Your task to perform on an android device: remove spam from my inbox in the gmail app Image 0: 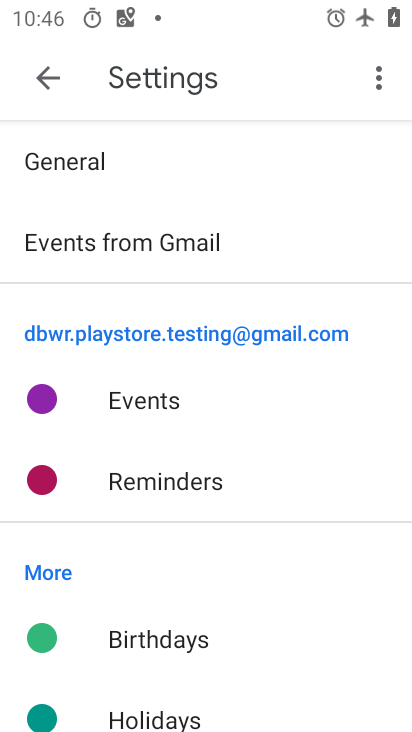
Step 0: press home button
Your task to perform on an android device: remove spam from my inbox in the gmail app Image 1: 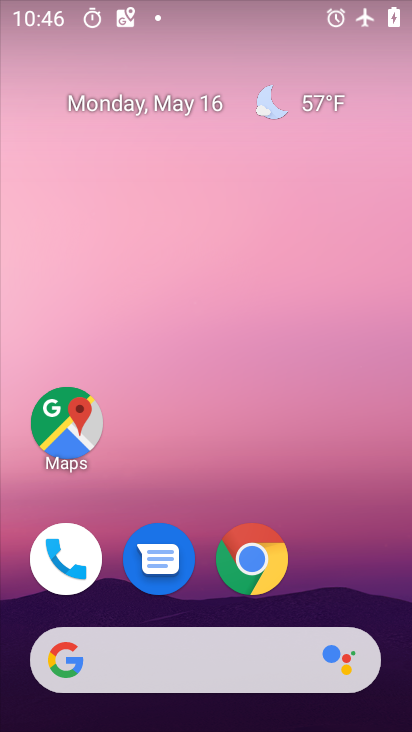
Step 1: drag from (337, 575) to (251, 180)
Your task to perform on an android device: remove spam from my inbox in the gmail app Image 2: 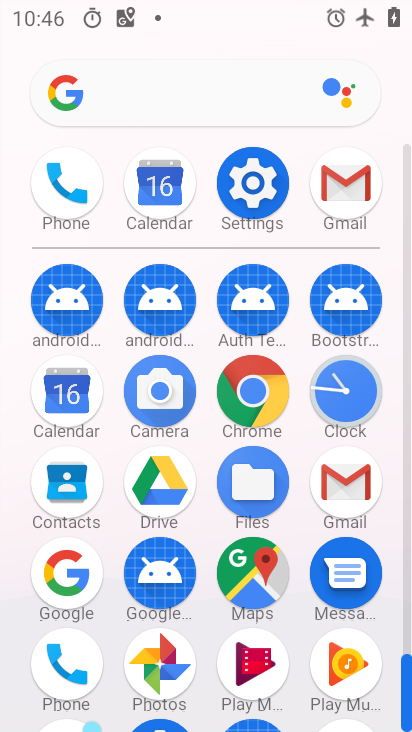
Step 2: click (340, 490)
Your task to perform on an android device: remove spam from my inbox in the gmail app Image 3: 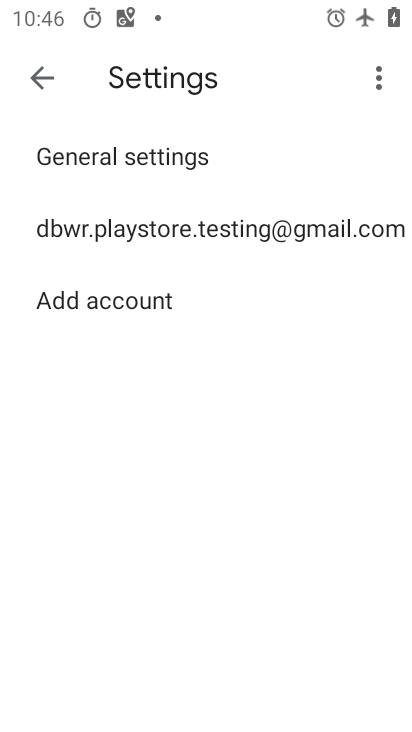
Step 3: click (46, 86)
Your task to perform on an android device: remove spam from my inbox in the gmail app Image 4: 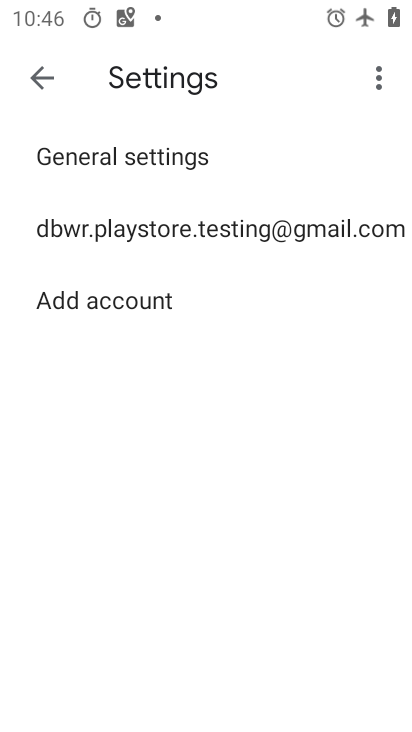
Step 4: click (45, 86)
Your task to perform on an android device: remove spam from my inbox in the gmail app Image 5: 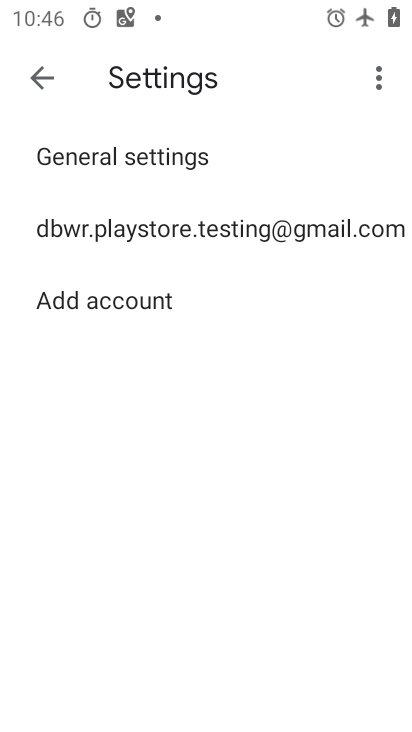
Step 5: click (45, 86)
Your task to perform on an android device: remove spam from my inbox in the gmail app Image 6: 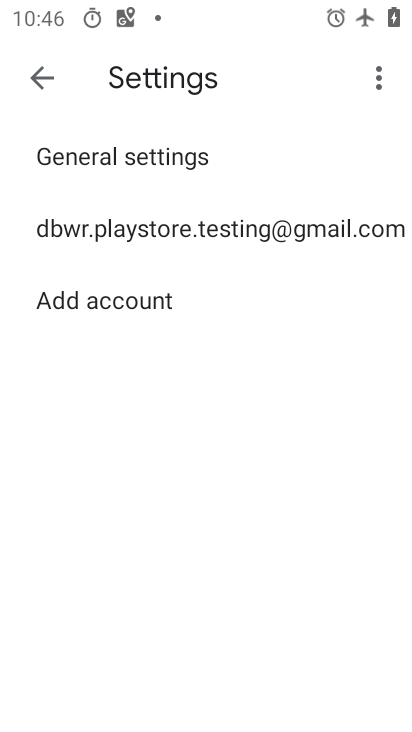
Step 6: click (45, 86)
Your task to perform on an android device: remove spam from my inbox in the gmail app Image 7: 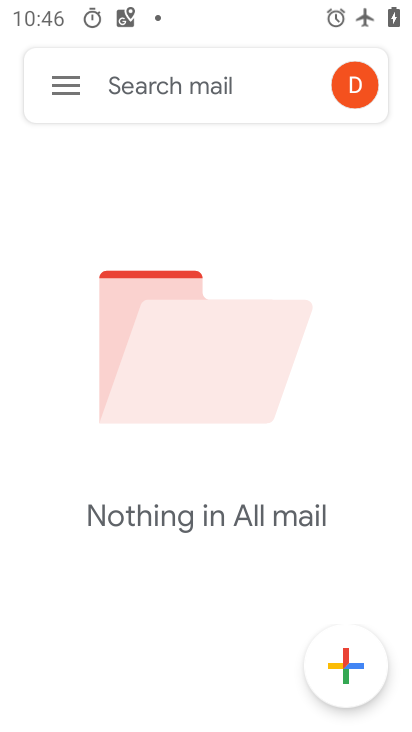
Step 7: click (49, 86)
Your task to perform on an android device: remove spam from my inbox in the gmail app Image 8: 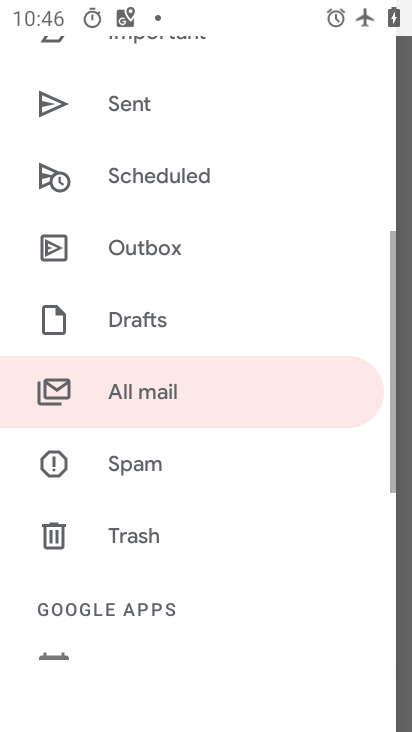
Step 8: drag from (140, 135) to (224, 705)
Your task to perform on an android device: remove spam from my inbox in the gmail app Image 9: 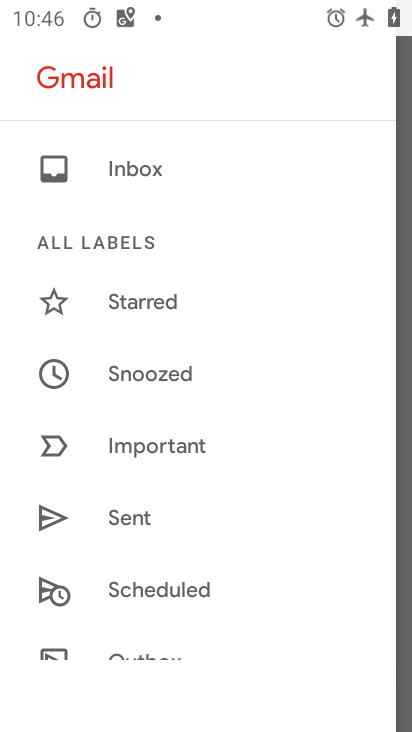
Step 9: click (130, 175)
Your task to perform on an android device: remove spam from my inbox in the gmail app Image 10: 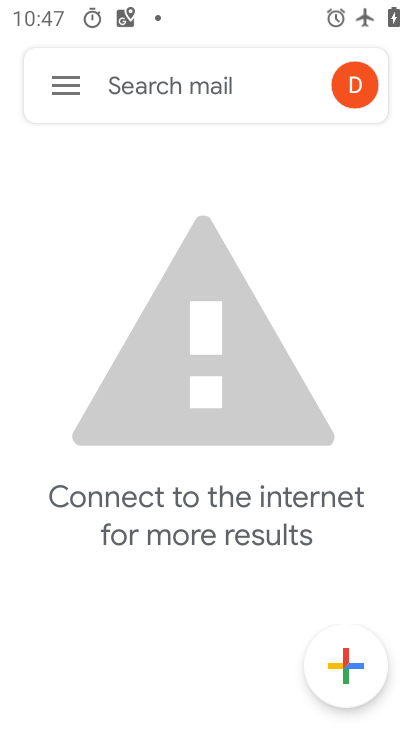
Step 10: task complete